Your task to perform on an android device: Open Maps and search for coffee Image 0: 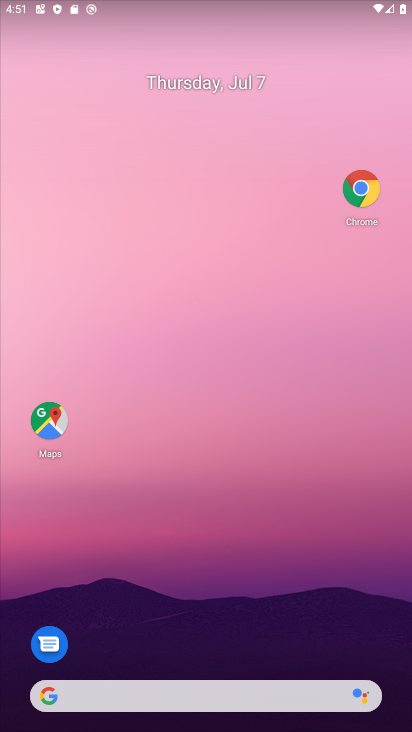
Step 0: click (32, 408)
Your task to perform on an android device: Open Maps and search for coffee Image 1: 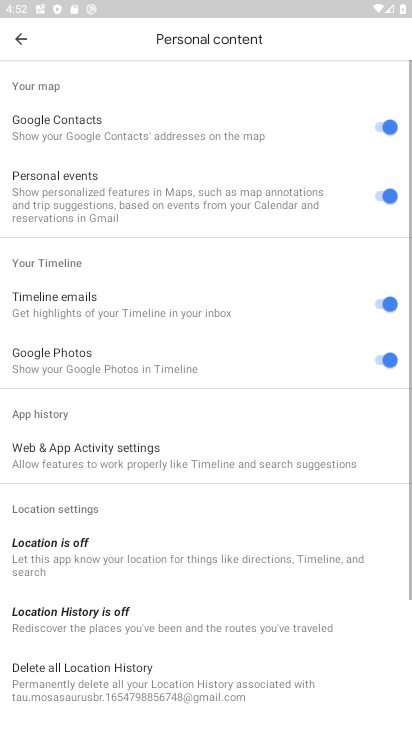
Step 1: click (23, 37)
Your task to perform on an android device: Open Maps and search for coffee Image 2: 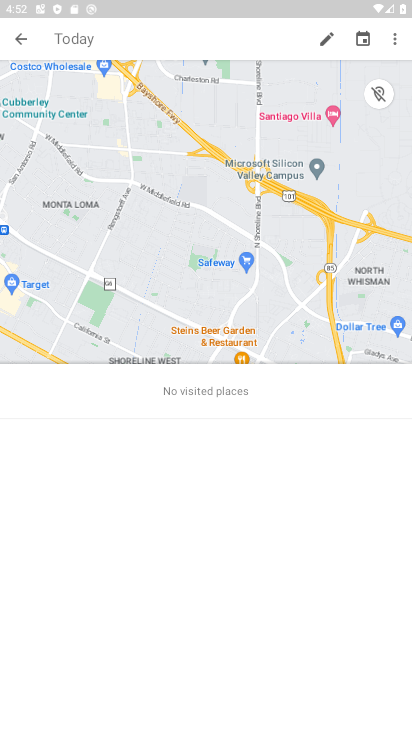
Step 2: click (23, 37)
Your task to perform on an android device: Open Maps and search for coffee Image 3: 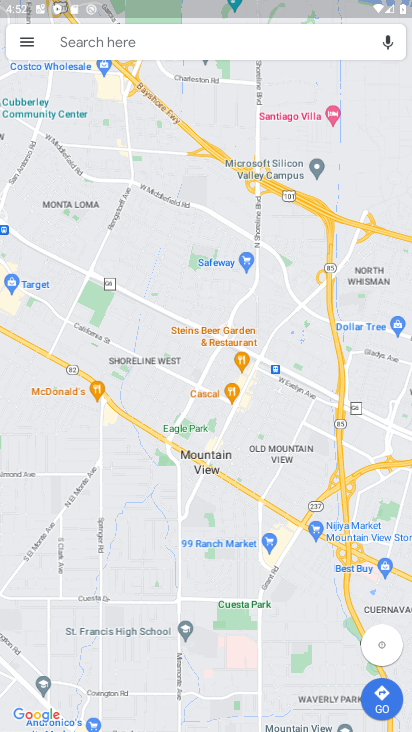
Step 3: click (91, 33)
Your task to perform on an android device: Open Maps and search for coffee Image 4: 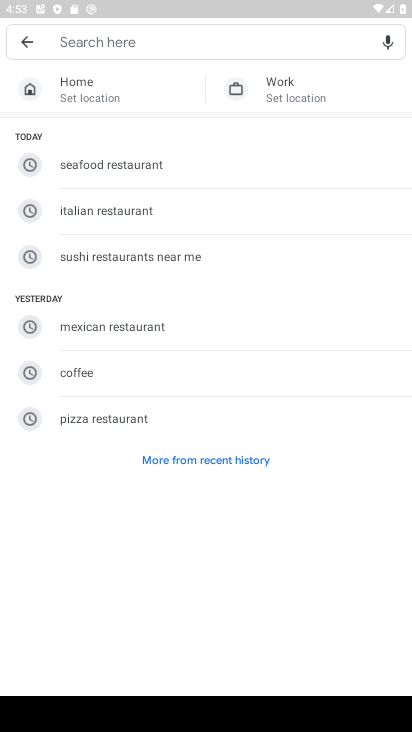
Step 4: type "coffee"
Your task to perform on an android device: Open Maps and search for coffee Image 5: 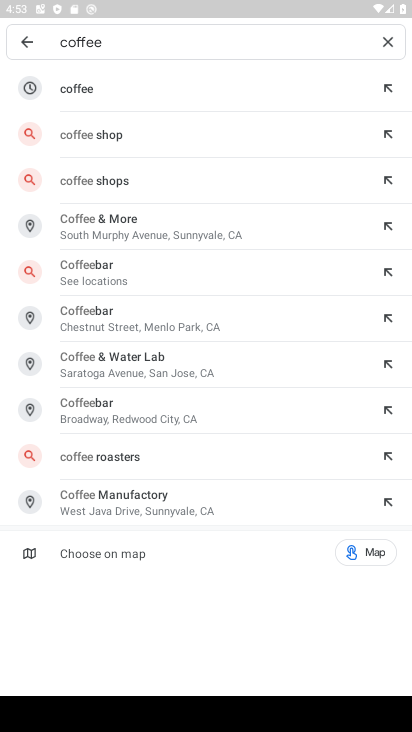
Step 5: click (192, 77)
Your task to perform on an android device: Open Maps and search for coffee Image 6: 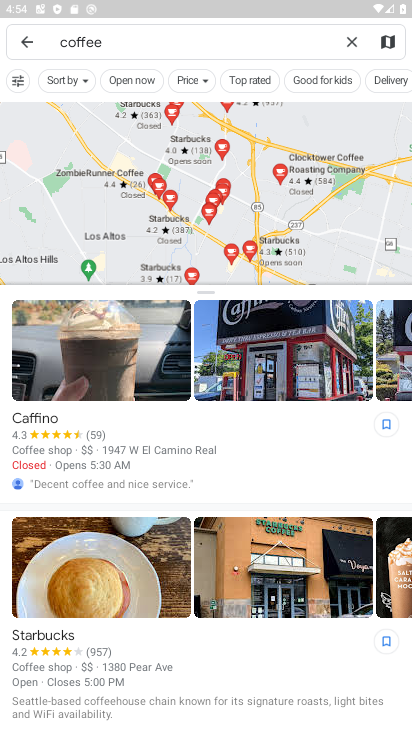
Step 6: click (28, 48)
Your task to perform on an android device: Open Maps and search for coffee Image 7: 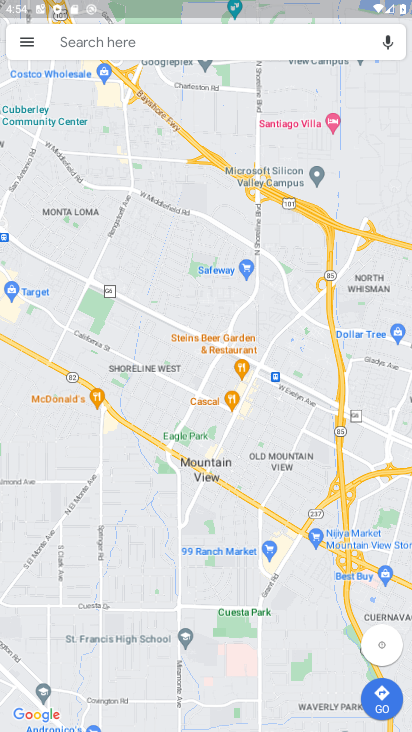
Step 7: click (210, 42)
Your task to perform on an android device: Open Maps and search for coffee Image 8: 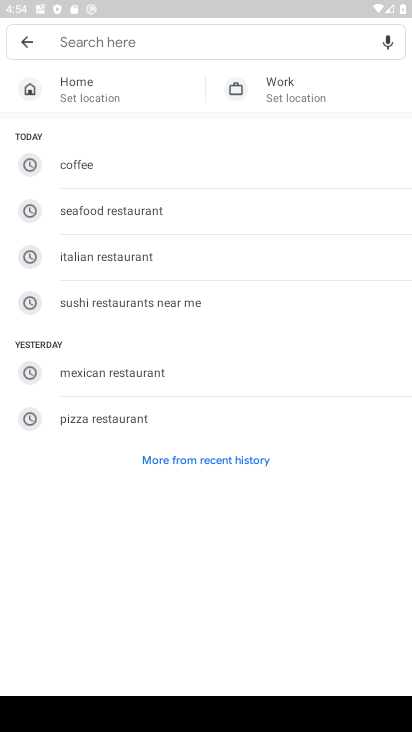
Step 8: type "coffee"
Your task to perform on an android device: Open Maps and search for coffee Image 9: 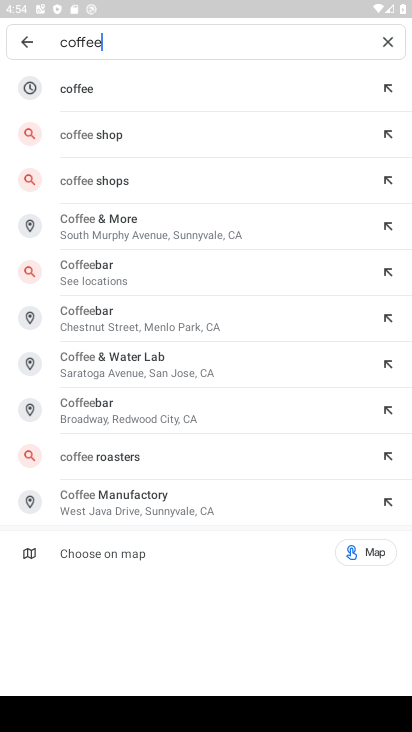
Step 9: click (110, 91)
Your task to perform on an android device: Open Maps and search for coffee Image 10: 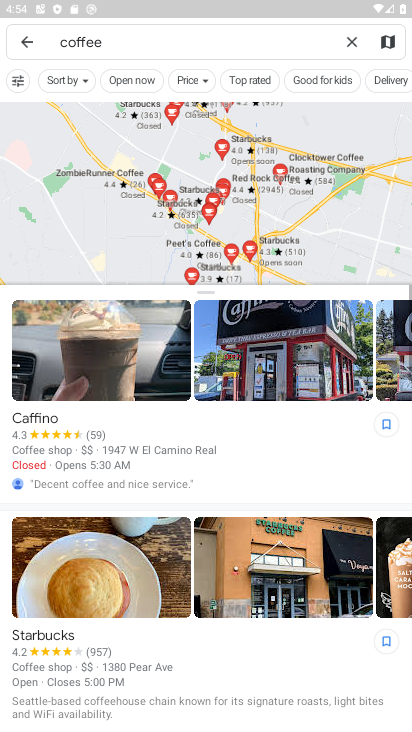
Step 10: task complete